Your task to perform on an android device: turn on javascript in the chrome app Image 0: 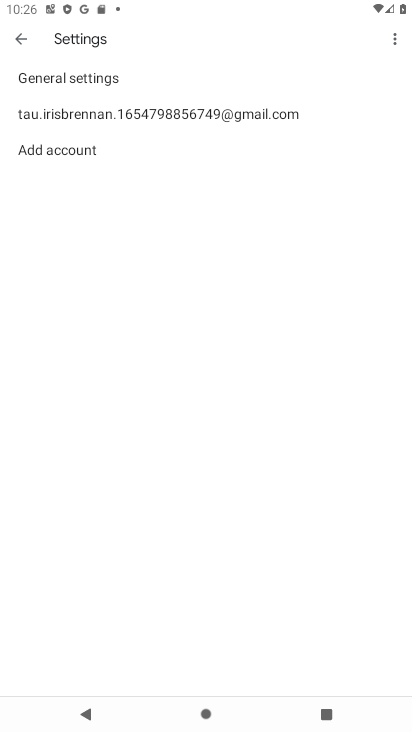
Step 0: press home button
Your task to perform on an android device: turn on javascript in the chrome app Image 1: 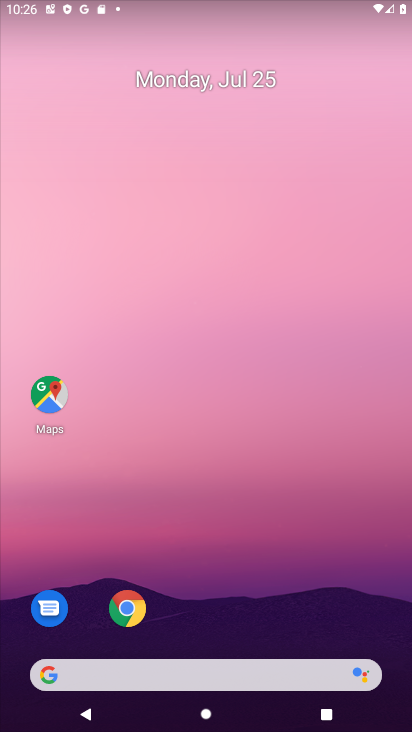
Step 1: drag from (235, 644) to (244, 262)
Your task to perform on an android device: turn on javascript in the chrome app Image 2: 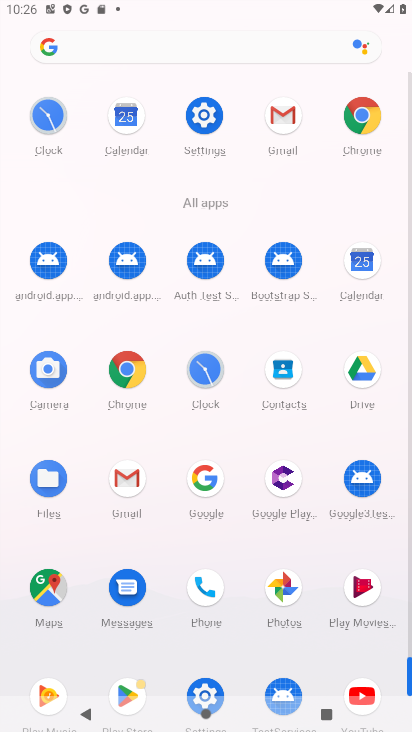
Step 2: click (126, 380)
Your task to perform on an android device: turn on javascript in the chrome app Image 3: 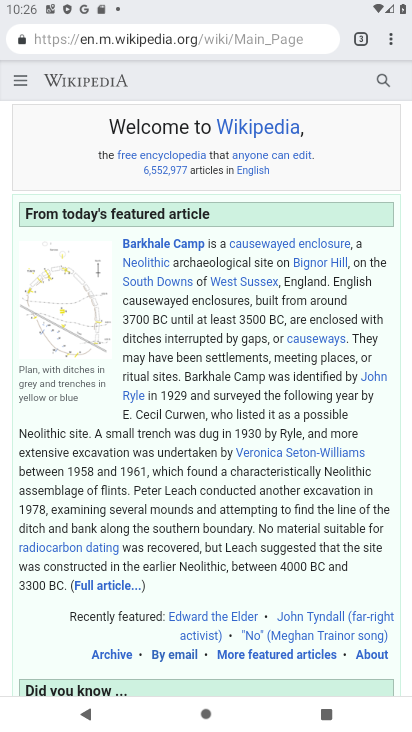
Step 3: click (397, 27)
Your task to perform on an android device: turn on javascript in the chrome app Image 4: 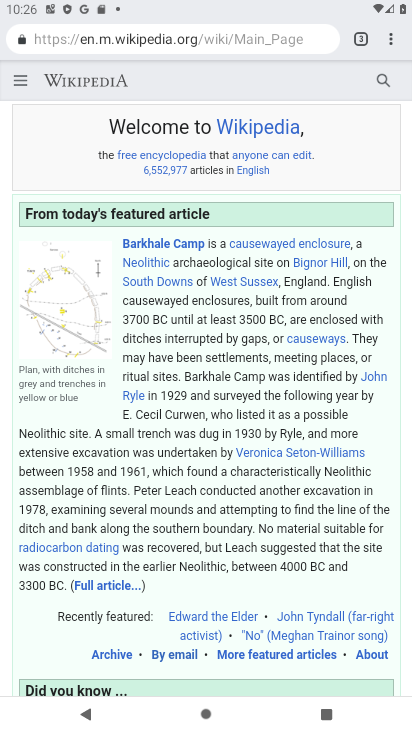
Step 4: click (393, 46)
Your task to perform on an android device: turn on javascript in the chrome app Image 5: 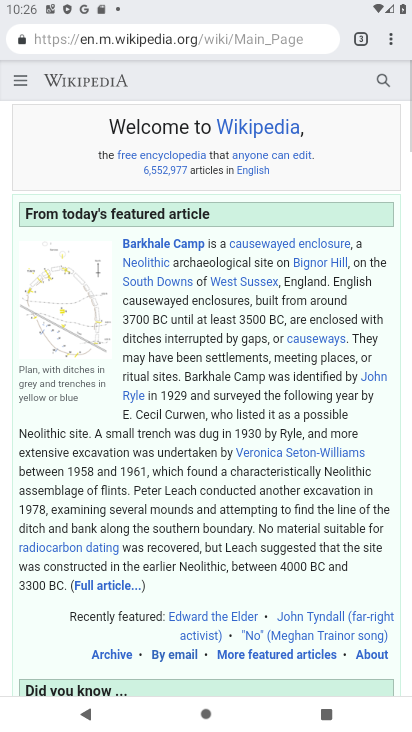
Step 5: click (395, 41)
Your task to perform on an android device: turn on javascript in the chrome app Image 6: 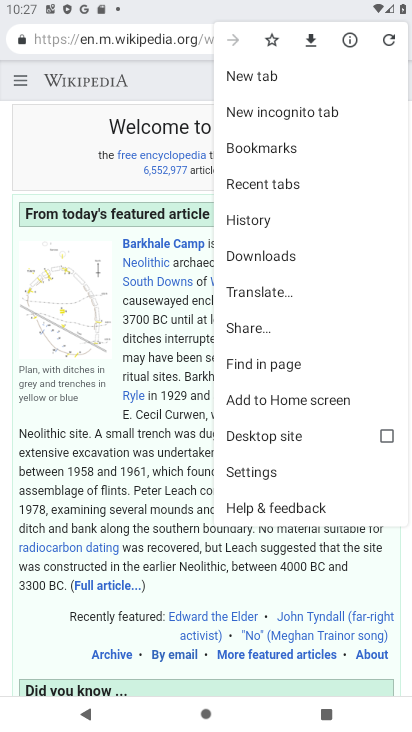
Step 6: click (252, 478)
Your task to perform on an android device: turn on javascript in the chrome app Image 7: 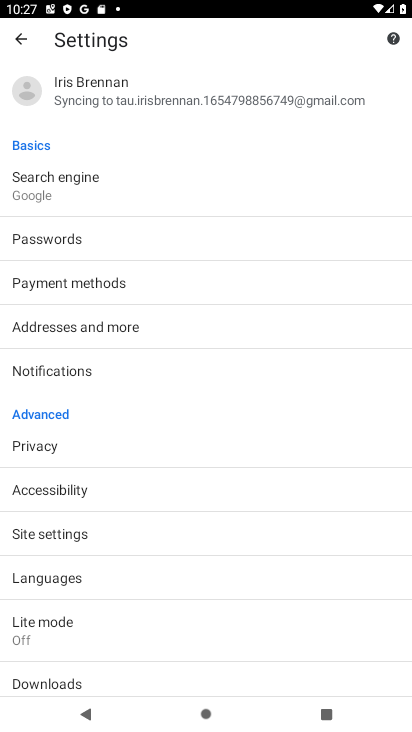
Step 7: click (125, 529)
Your task to perform on an android device: turn on javascript in the chrome app Image 8: 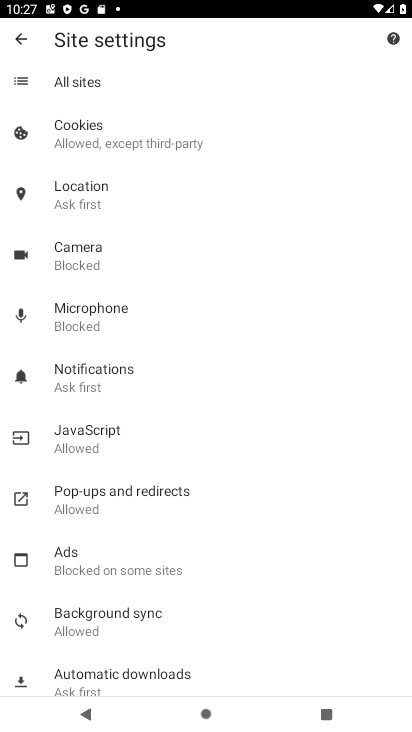
Step 8: click (96, 427)
Your task to perform on an android device: turn on javascript in the chrome app Image 9: 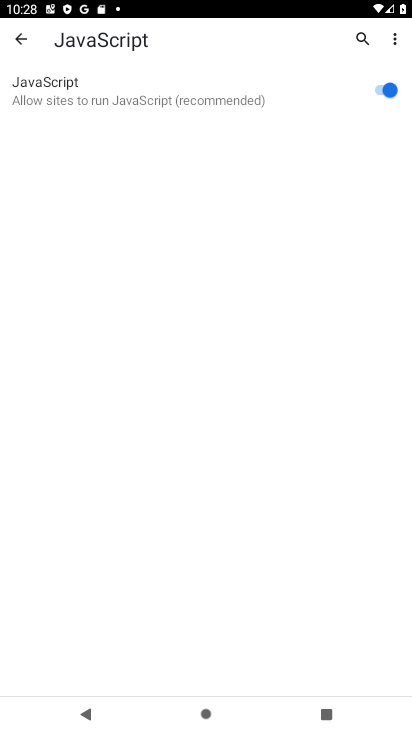
Step 9: task complete